Your task to perform on an android device: What's the weather today? Image 0: 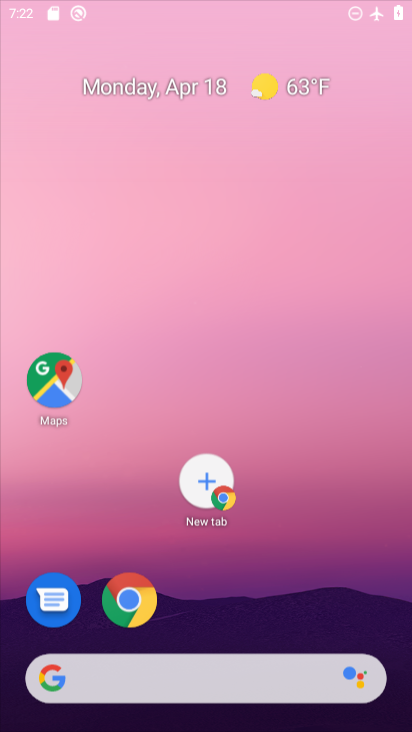
Step 0: click (319, 43)
Your task to perform on an android device: What's the weather today? Image 1: 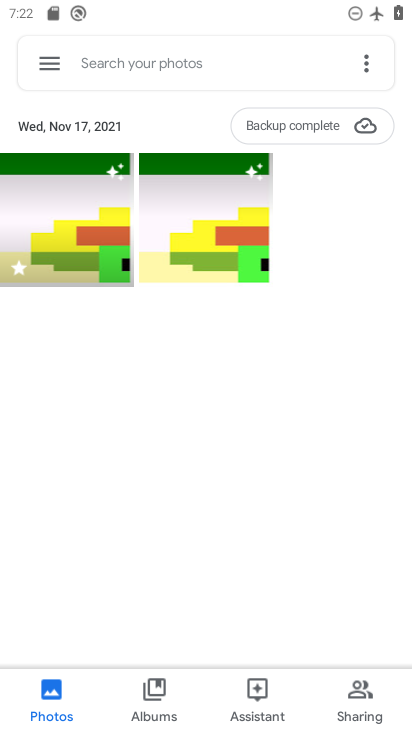
Step 1: press home button
Your task to perform on an android device: What's the weather today? Image 2: 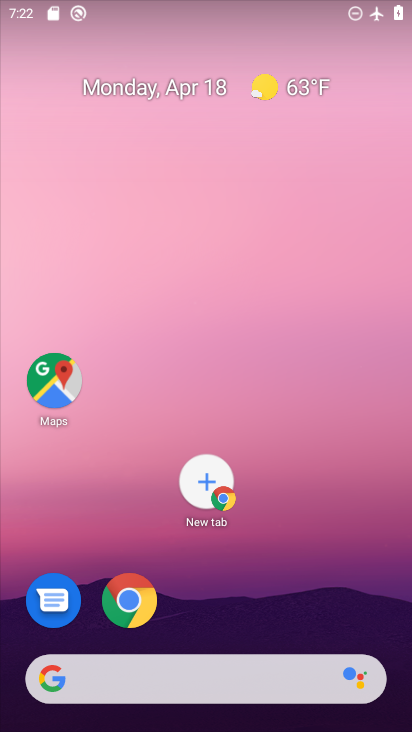
Step 2: click (271, 91)
Your task to perform on an android device: What's the weather today? Image 3: 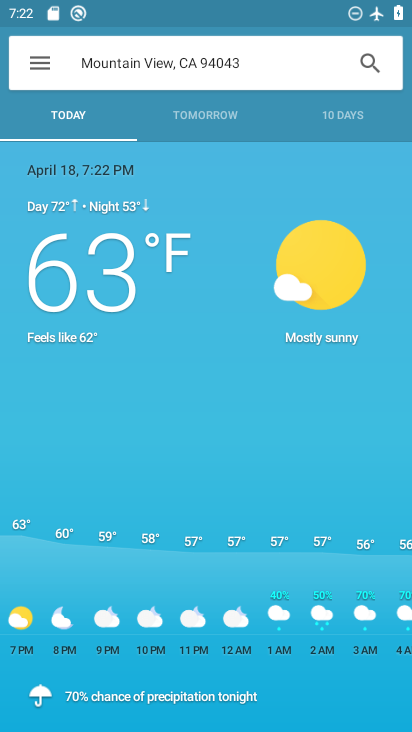
Step 3: task complete